Your task to perform on an android device: Go to display settings Image 0: 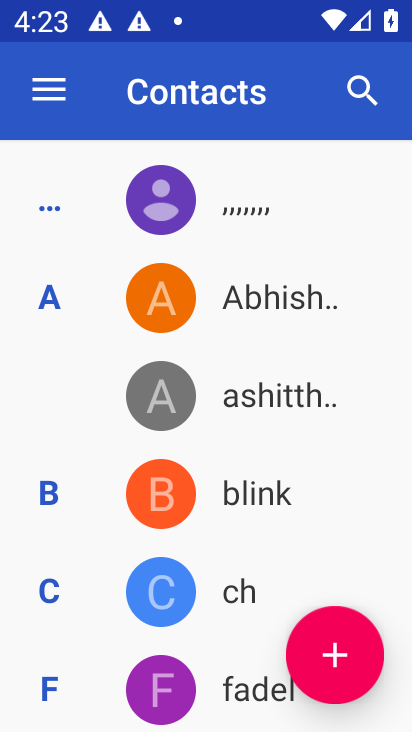
Step 0: press home button
Your task to perform on an android device: Go to display settings Image 1: 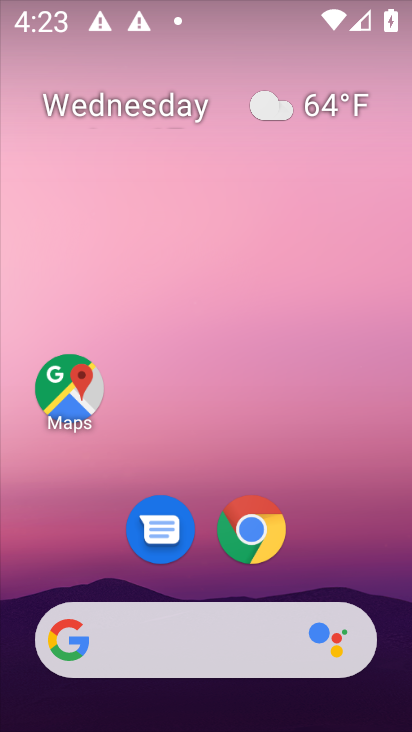
Step 1: drag from (188, 581) to (190, 269)
Your task to perform on an android device: Go to display settings Image 2: 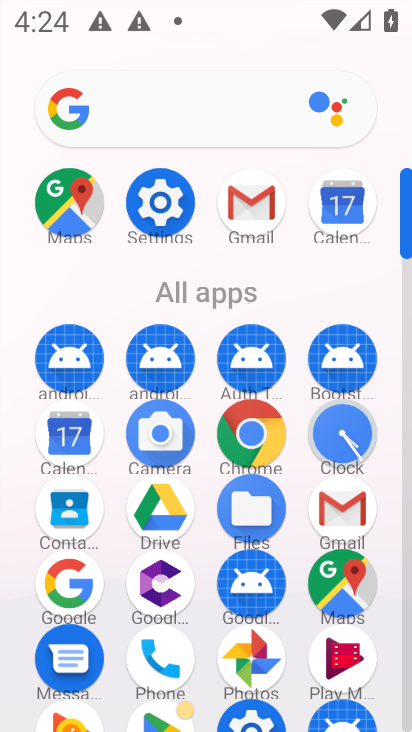
Step 2: click (163, 191)
Your task to perform on an android device: Go to display settings Image 3: 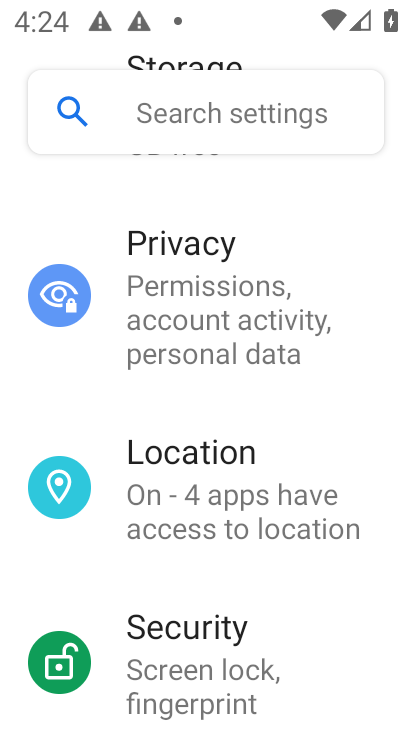
Step 3: drag from (200, 337) to (205, 525)
Your task to perform on an android device: Go to display settings Image 4: 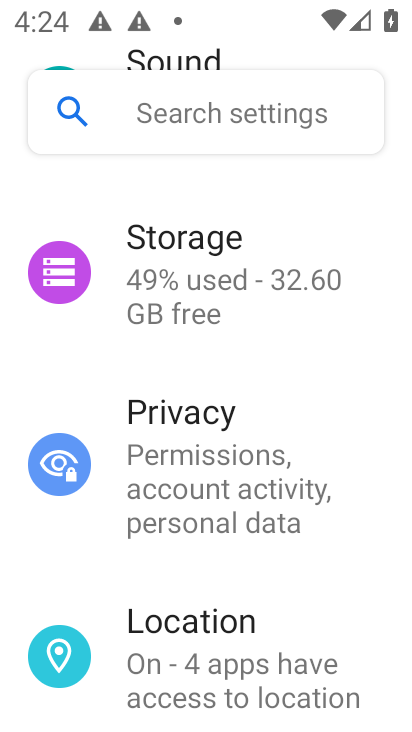
Step 4: drag from (190, 298) to (196, 657)
Your task to perform on an android device: Go to display settings Image 5: 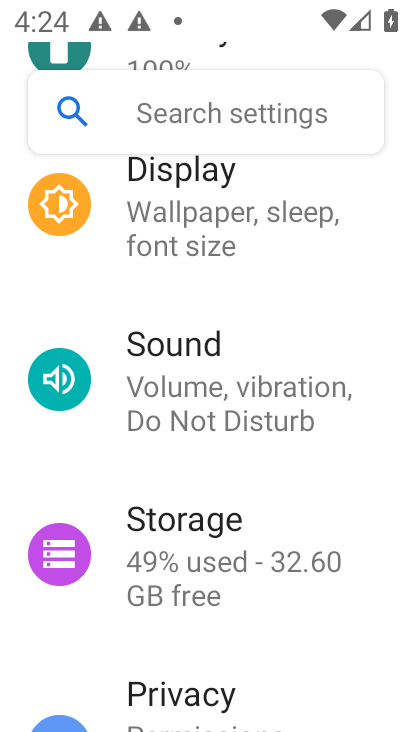
Step 5: drag from (213, 346) to (204, 540)
Your task to perform on an android device: Go to display settings Image 6: 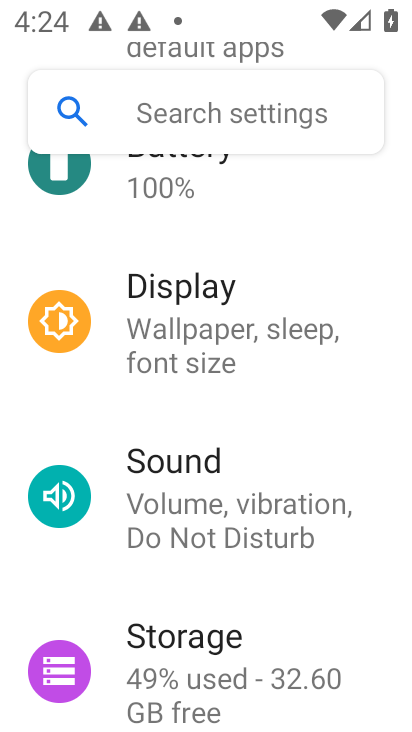
Step 6: click (198, 287)
Your task to perform on an android device: Go to display settings Image 7: 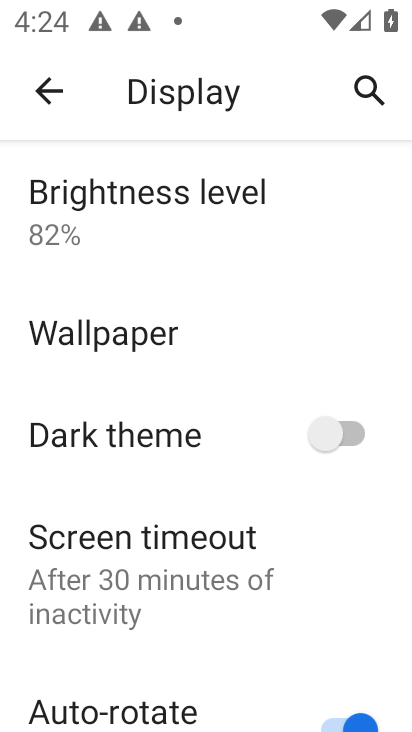
Step 7: task complete